Your task to perform on an android device: Open settings Image 0: 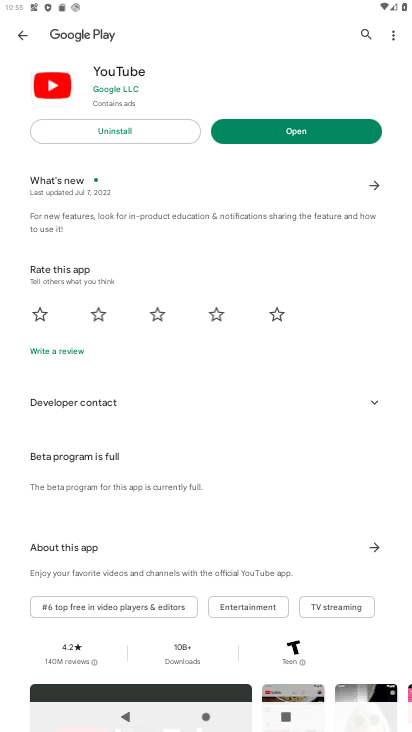
Step 0: press home button
Your task to perform on an android device: Open settings Image 1: 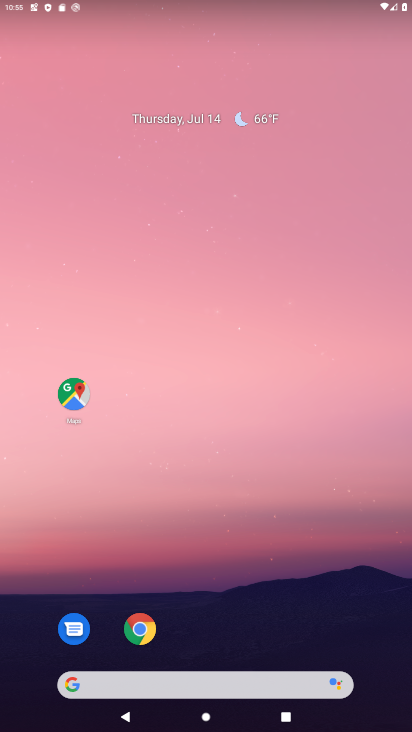
Step 1: drag from (297, 643) to (229, 172)
Your task to perform on an android device: Open settings Image 2: 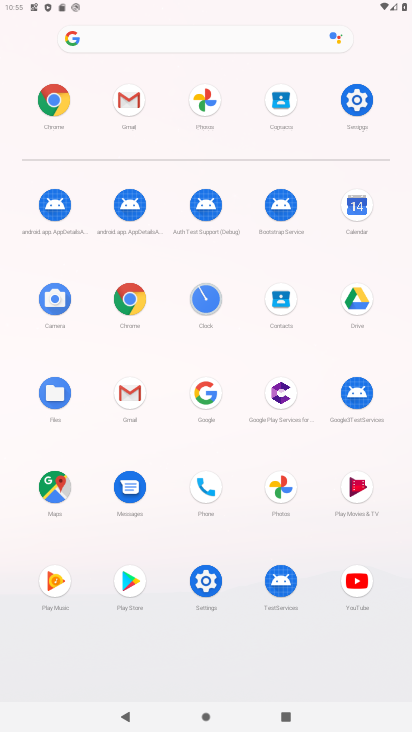
Step 2: click (350, 104)
Your task to perform on an android device: Open settings Image 3: 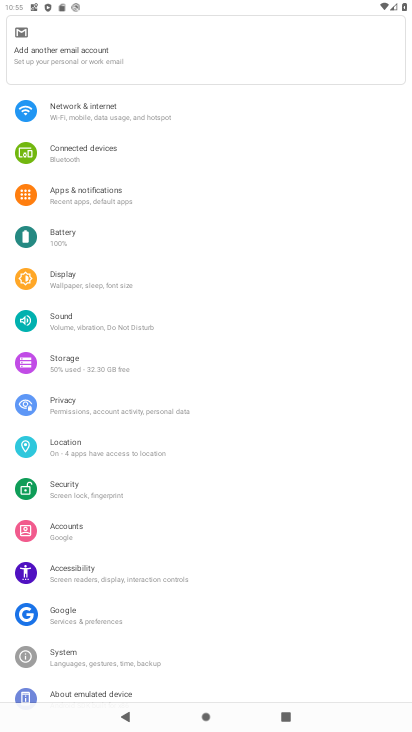
Step 3: task complete